Your task to perform on an android device: turn on notifications settings in the gmail app Image 0: 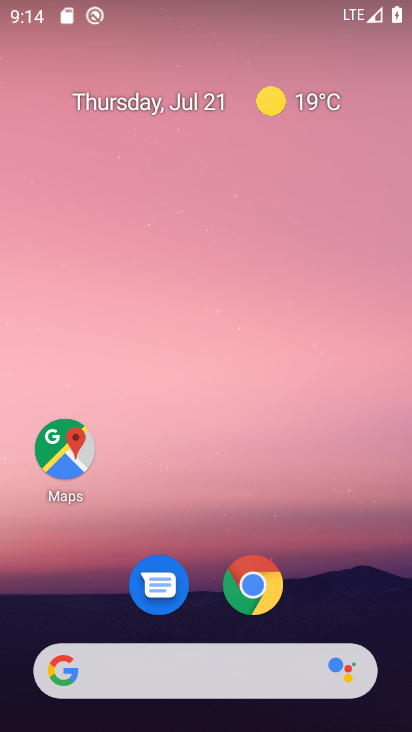
Step 0: drag from (320, 577) to (332, 48)
Your task to perform on an android device: turn on notifications settings in the gmail app Image 1: 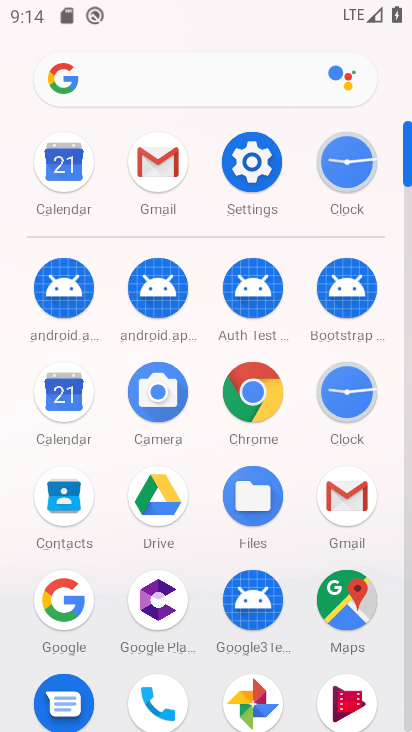
Step 1: click (271, 170)
Your task to perform on an android device: turn on notifications settings in the gmail app Image 2: 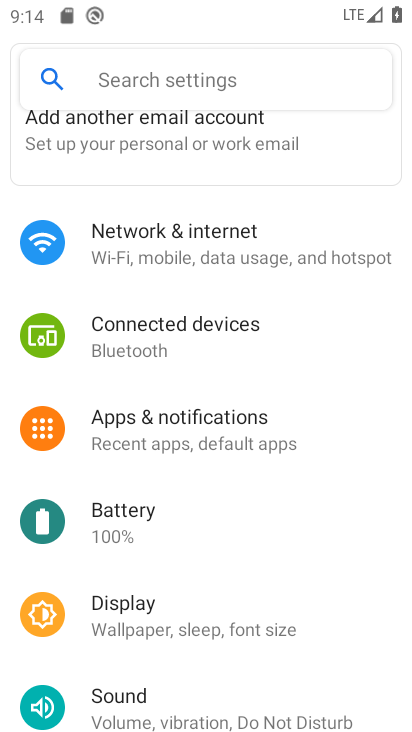
Step 2: click (221, 422)
Your task to perform on an android device: turn on notifications settings in the gmail app Image 3: 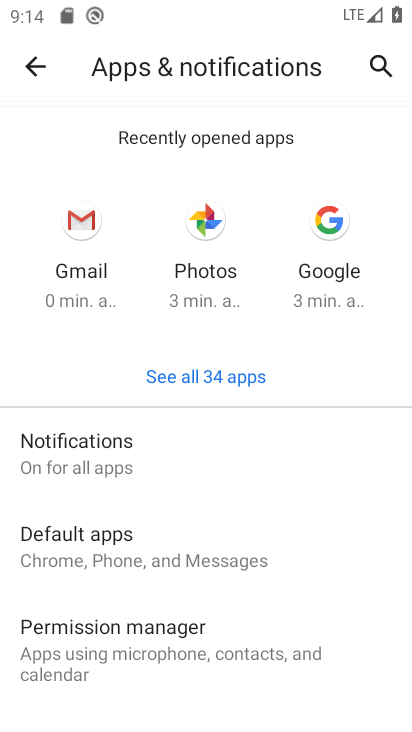
Step 3: click (73, 224)
Your task to perform on an android device: turn on notifications settings in the gmail app Image 4: 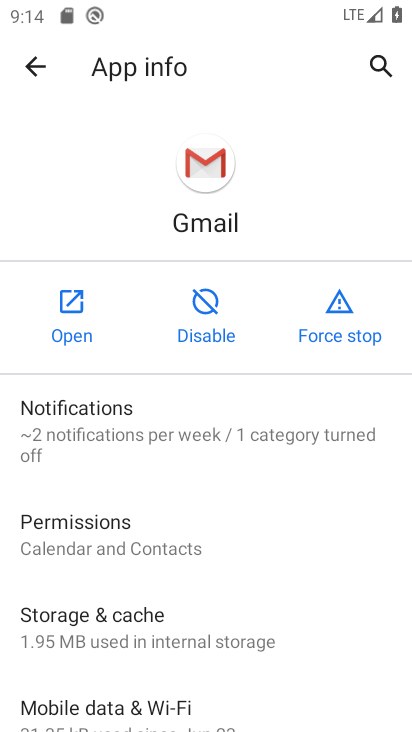
Step 4: click (147, 408)
Your task to perform on an android device: turn on notifications settings in the gmail app Image 5: 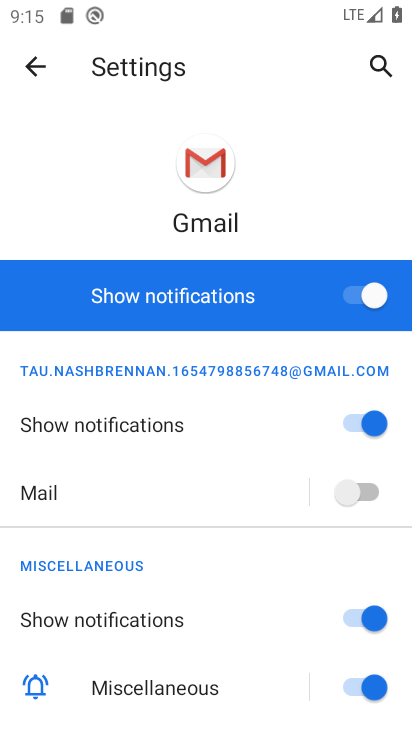
Step 5: task complete